Your task to perform on an android device: Open calendar and show me the first week of next month Image 0: 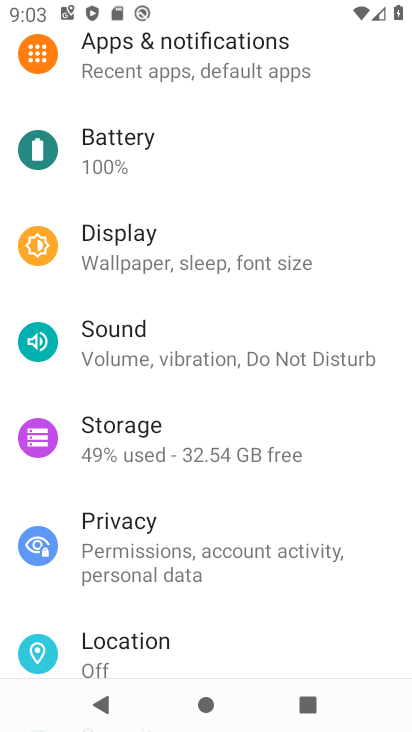
Step 0: press home button
Your task to perform on an android device: Open calendar and show me the first week of next month Image 1: 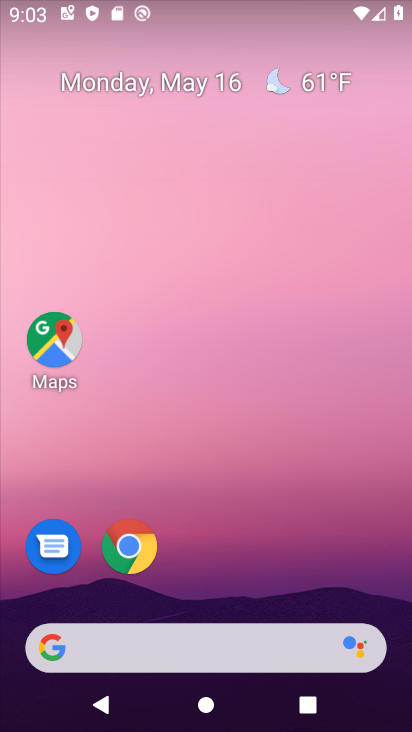
Step 1: drag from (322, 527) to (211, 114)
Your task to perform on an android device: Open calendar and show me the first week of next month Image 2: 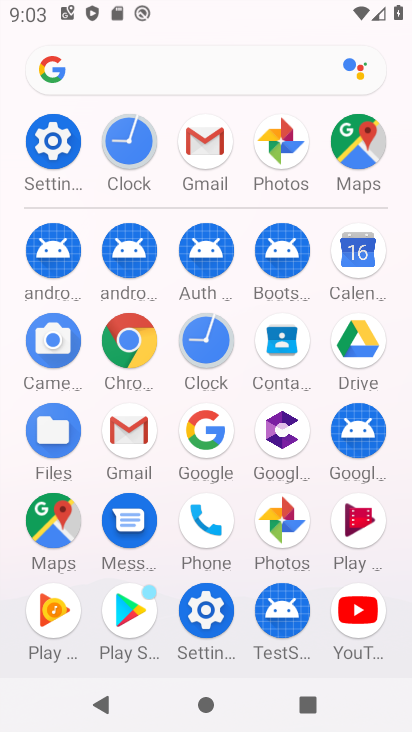
Step 2: click (357, 256)
Your task to perform on an android device: Open calendar and show me the first week of next month Image 3: 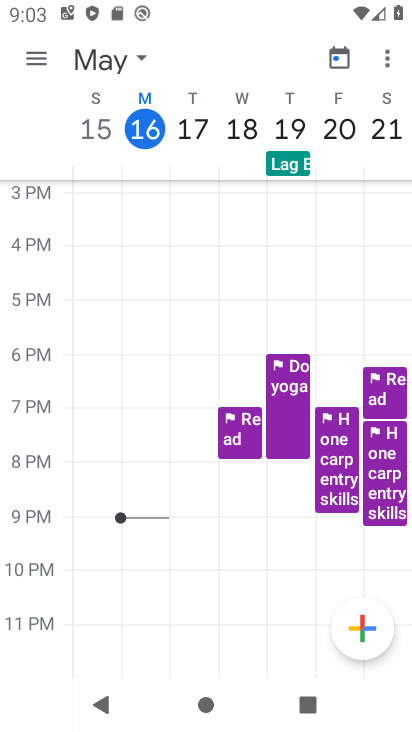
Step 3: click (124, 60)
Your task to perform on an android device: Open calendar and show me the first week of next month Image 4: 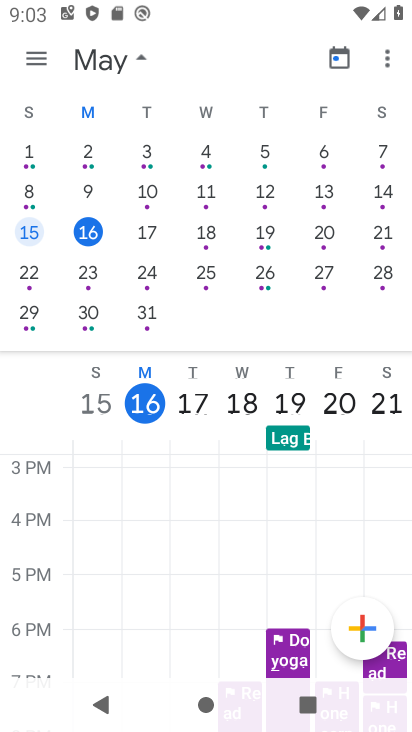
Step 4: drag from (342, 244) to (0, 172)
Your task to perform on an android device: Open calendar and show me the first week of next month Image 5: 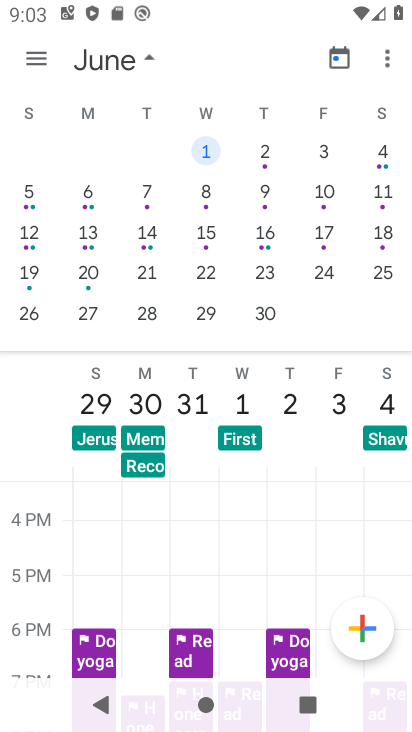
Step 5: click (90, 194)
Your task to perform on an android device: Open calendar and show me the first week of next month Image 6: 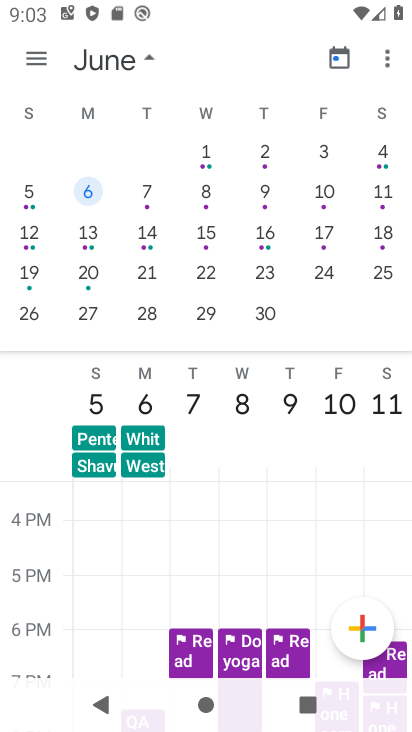
Step 6: task complete